Your task to perform on an android device: Go to ESPN.com Image 0: 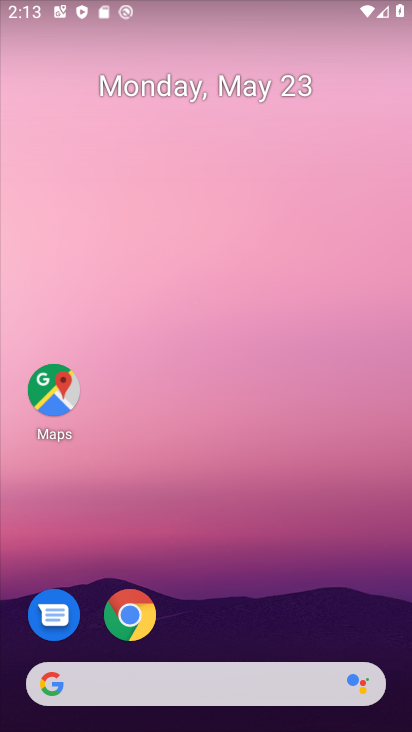
Step 0: drag from (341, 600) to (368, 109)
Your task to perform on an android device: Go to ESPN.com Image 1: 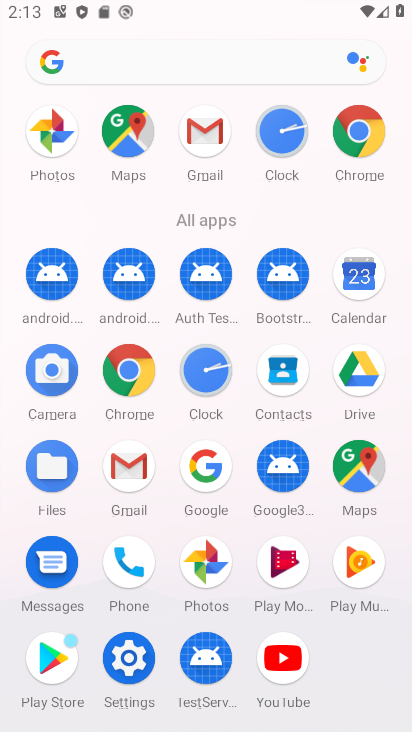
Step 1: click (135, 405)
Your task to perform on an android device: Go to ESPN.com Image 2: 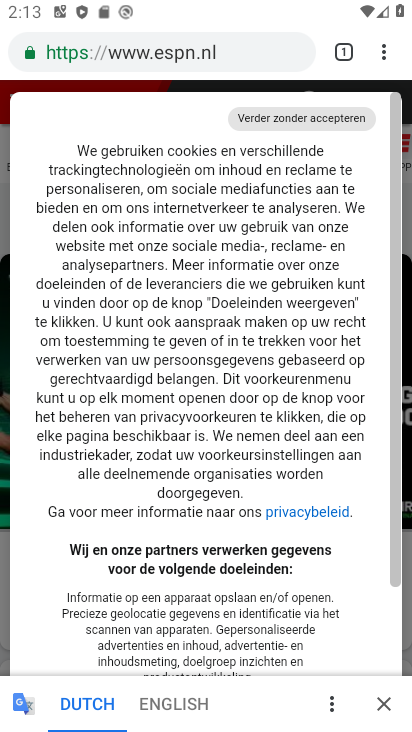
Step 2: click (238, 59)
Your task to perform on an android device: Go to ESPN.com Image 3: 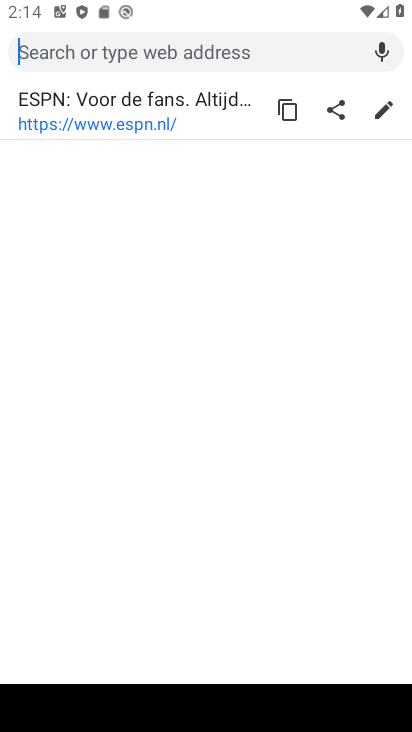
Step 3: type "espn.com"
Your task to perform on an android device: Go to ESPN.com Image 4: 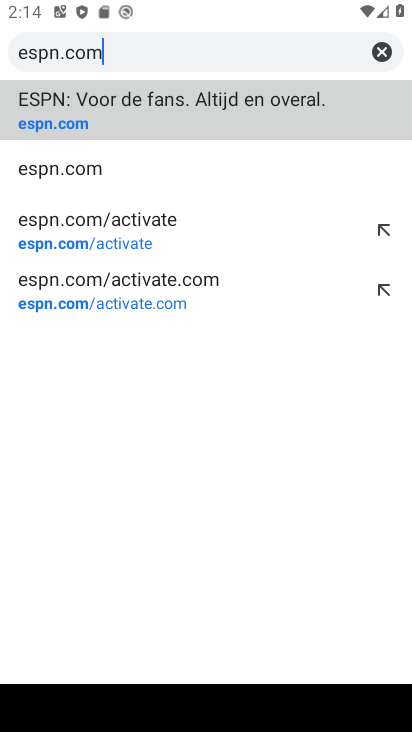
Step 4: click (103, 175)
Your task to perform on an android device: Go to ESPN.com Image 5: 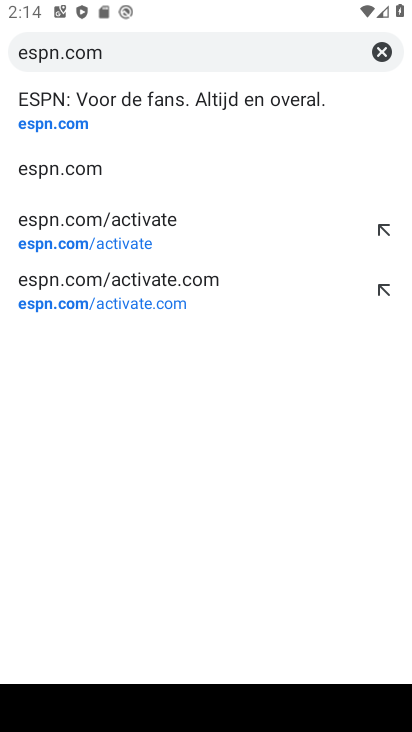
Step 5: click (120, 101)
Your task to perform on an android device: Go to ESPN.com Image 6: 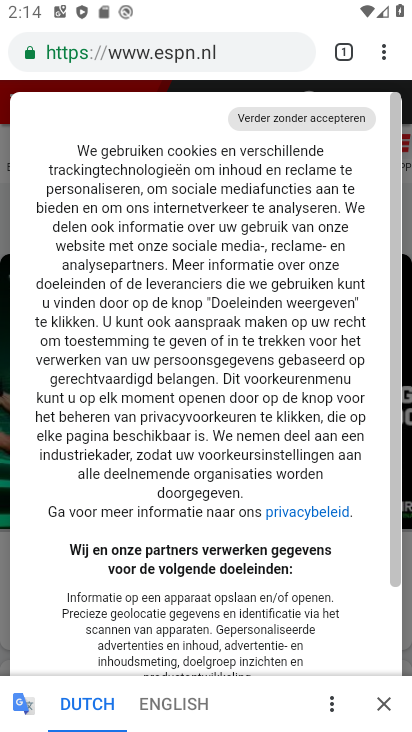
Step 6: task complete